Your task to perform on an android device: Search for seafood restaurants on Google Maps Image 0: 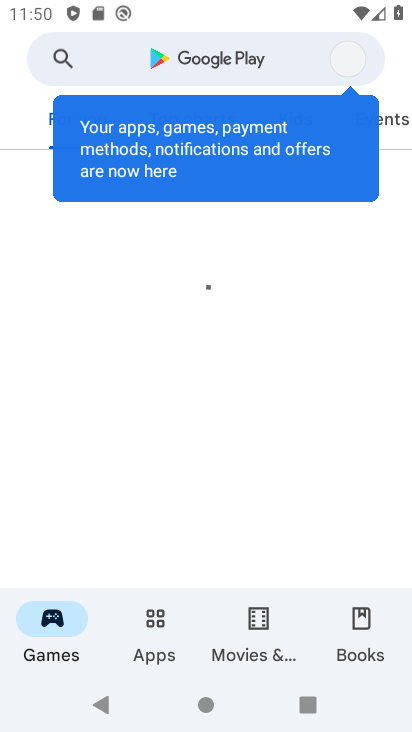
Step 0: press home button
Your task to perform on an android device: Search for seafood restaurants on Google Maps Image 1: 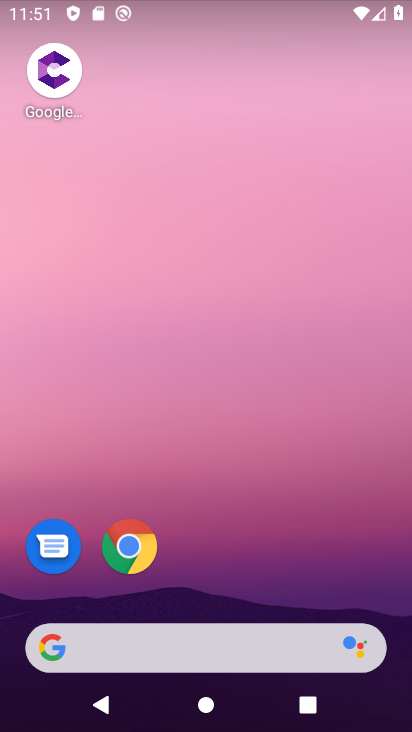
Step 1: drag from (91, 597) to (223, 46)
Your task to perform on an android device: Search for seafood restaurants on Google Maps Image 2: 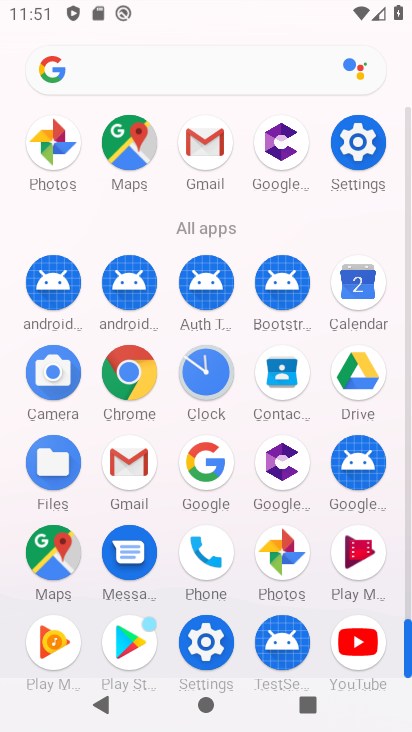
Step 2: click (63, 556)
Your task to perform on an android device: Search for seafood restaurants on Google Maps Image 3: 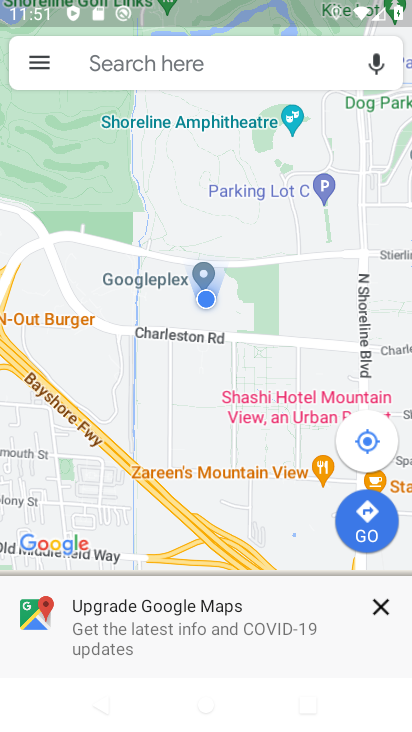
Step 3: click (161, 71)
Your task to perform on an android device: Search for seafood restaurants on Google Maps Image 4: 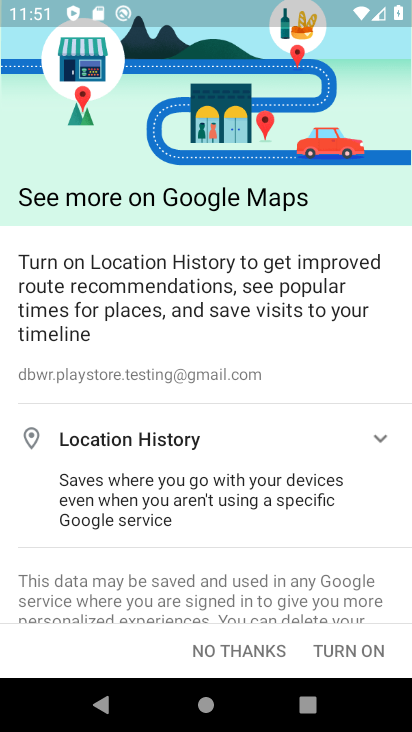
Step 4: click (225, 645)
Your task to perform on an android device: Search for seafood restaurants on Google Maps Image 5: 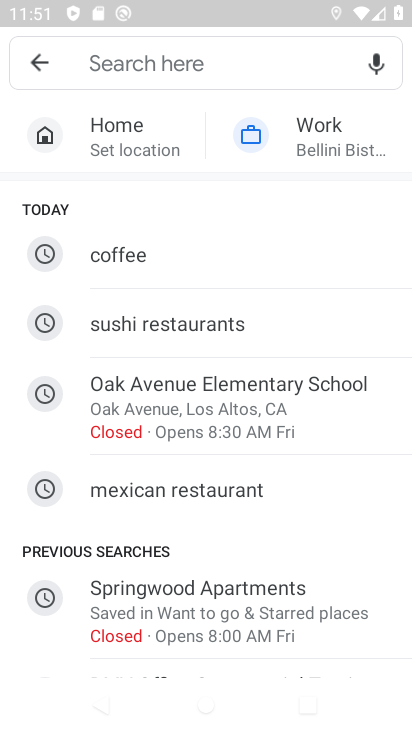
Step 5: click (159, 53)
Your task to perform on an android device: Search for seafood restaurants on Google Maps Image 6: 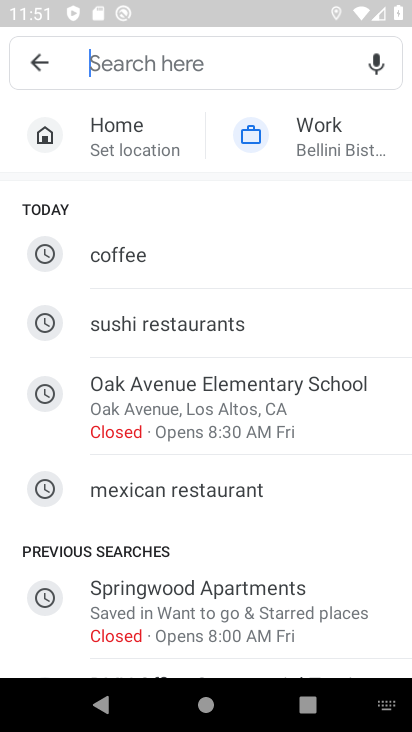
Step 6: type "seafood restaurants "
Your task to perform on an android device: Search for seafood restaurants on Google Maps Image 7: 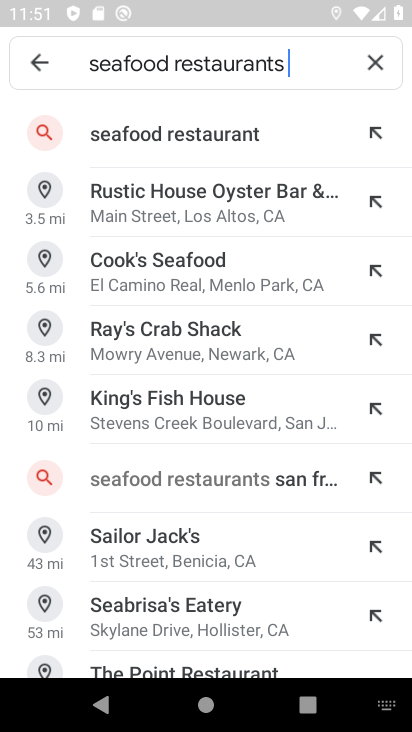
Step 7: click (222, 149)
Your task to perform on an android device: Search for seafood restaurants on Google Maps Image 8: 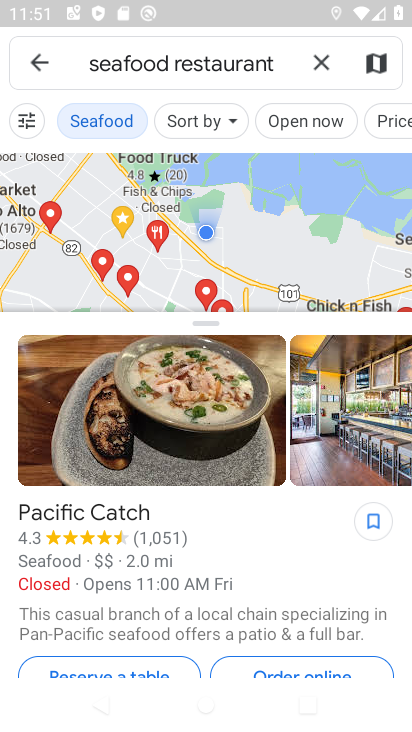
Step 8: task complete